Your task to perform on an android device: Is it going to rain today? Image 0: 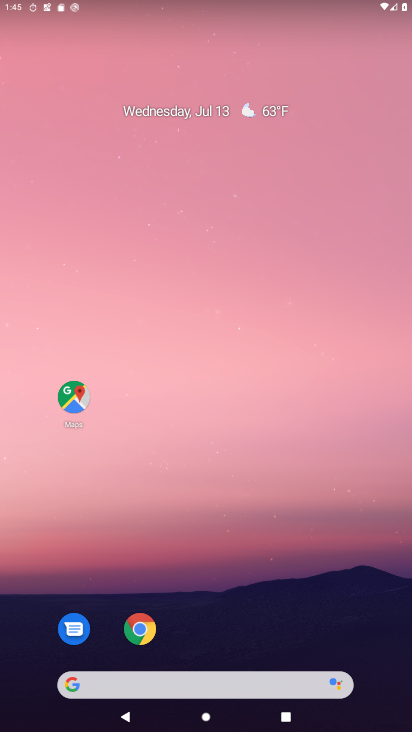
Step 0: drag from (203, 631) to (296, 0)
Your task to perform on an android device: Is it going to rain today? Image 1: 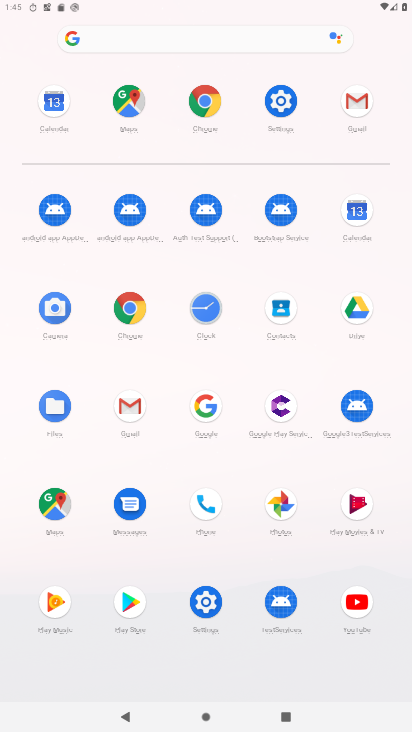
Step 1: click (111, 38)
Your task to perform on an android device: Is it going to rain today? Image 2: 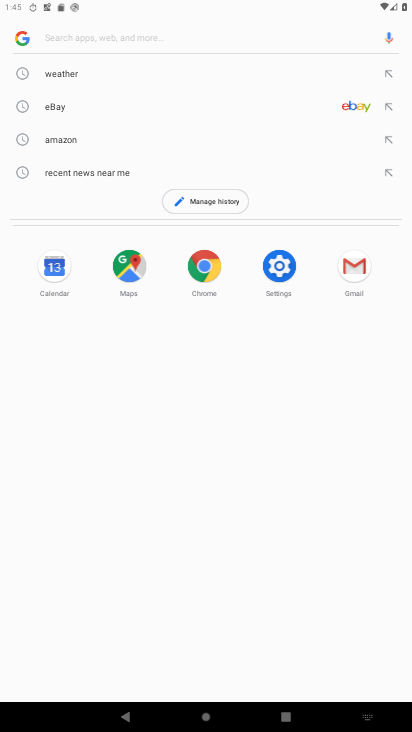
Step 2: type "Is it going to rain today?"
Your task to perform on an android device: Is it going to rain today? Image 3: 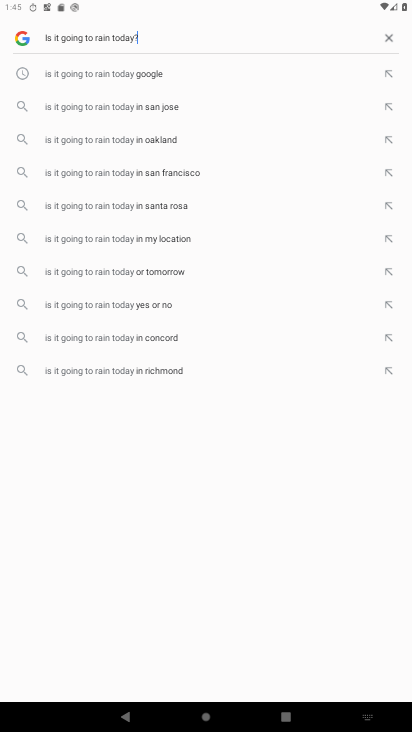
Step 3: type ""
Your task to perform on an android device: Is it going to rain today? Image 4: 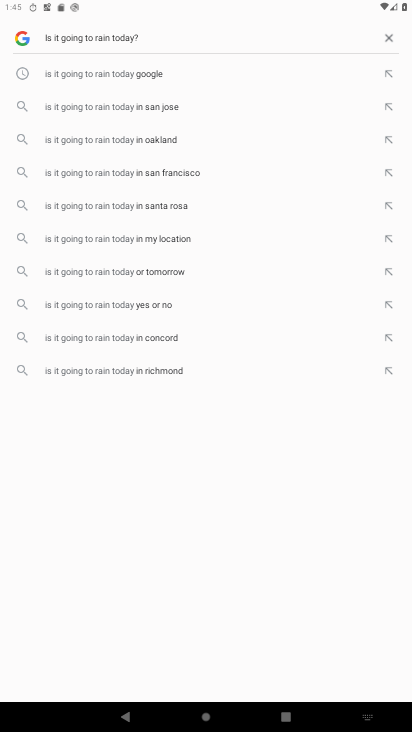
Step 4: click (130, 80)
Your task to perform on an android device: Is it going to rain today? Image 5: 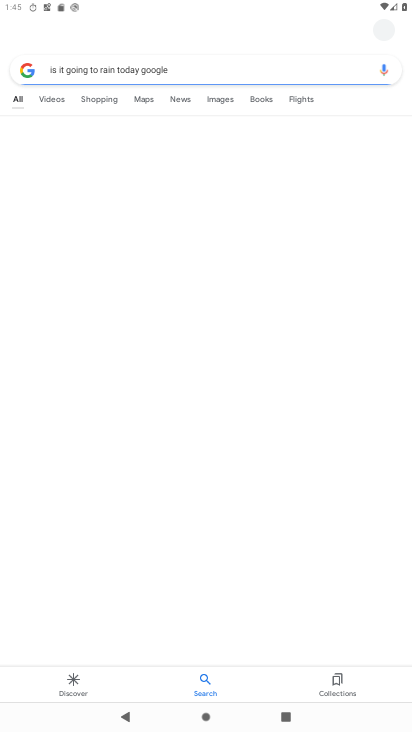
Step 5: task complete